Your task to perform on an android device: change timer sound Image 0: 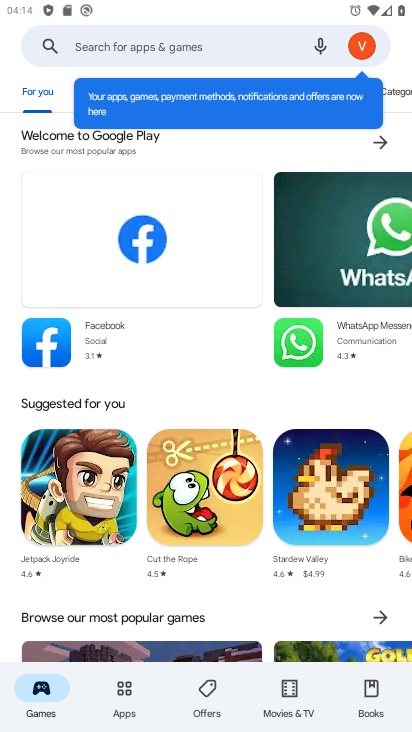
Step 0: press home button
Your task to perform on an android device: change timer sound Image 1: 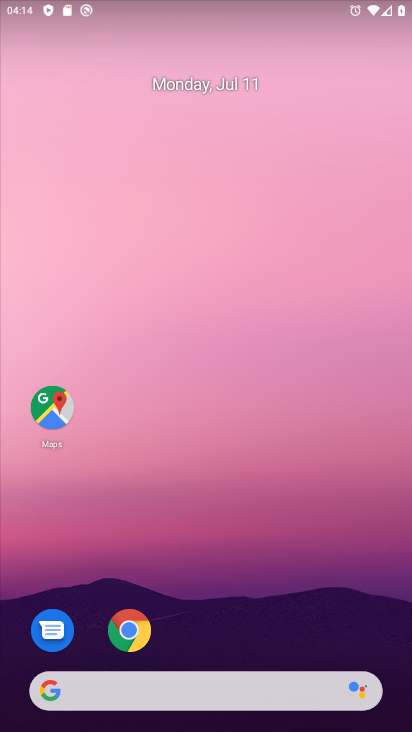
Step 1: drag from (217, 653) to (229, 159)
Your task to perform on an android device: change timer sound Image 2: 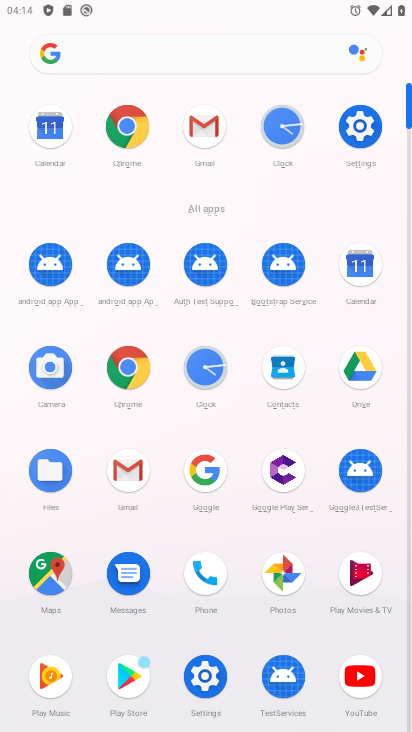
Step 2: click (283, 119)
Your task to perform on an android device: change timer sound Image 3: 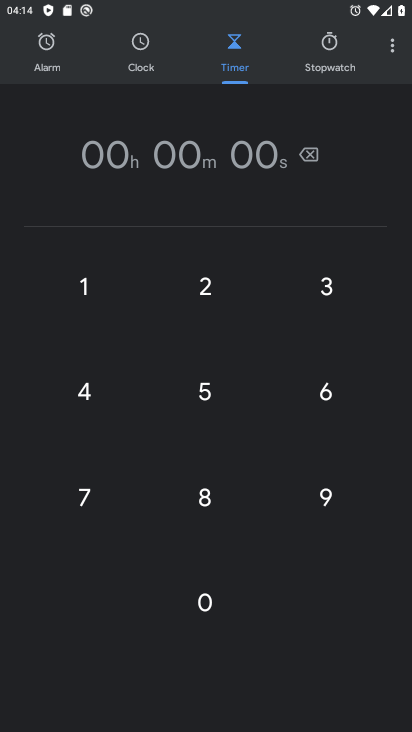
Step 3: click (393, 45)
Your task to perform on an android device: change timer sound Image 4: 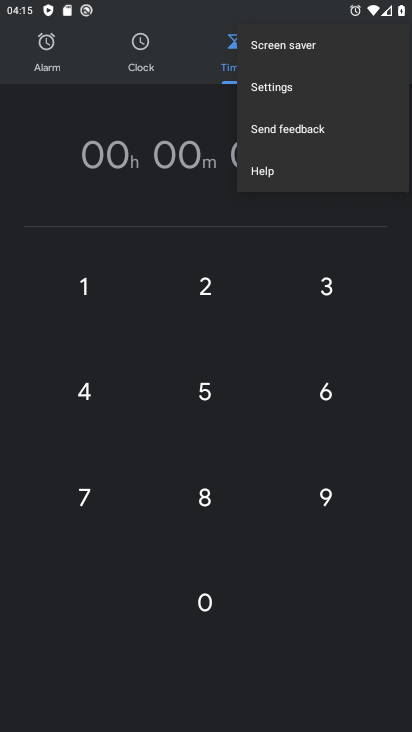
Step 4: click (298, 88)
Your task to perform on an android device: change timer sound Image 5: 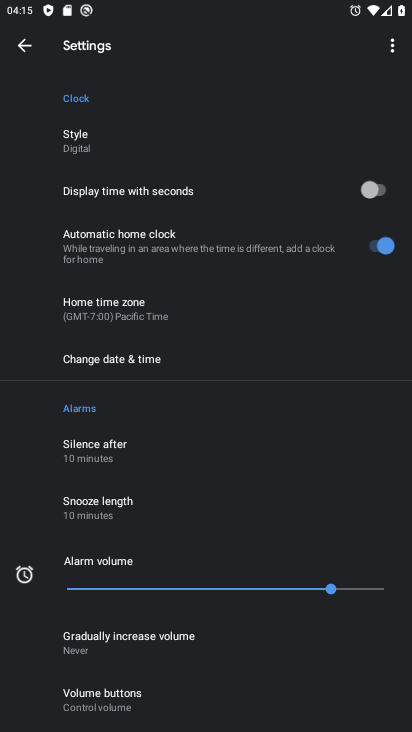
Step 5: drag from (170, 661) to (172, 218)
Your task to perform on an android device: change timer sound Image 6: 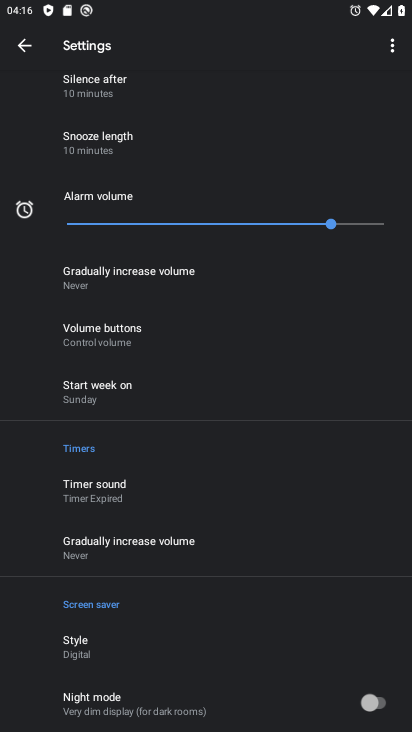
Step 6: click (136, 496)
Your task to perform on an android device: change timer sound Image 7: 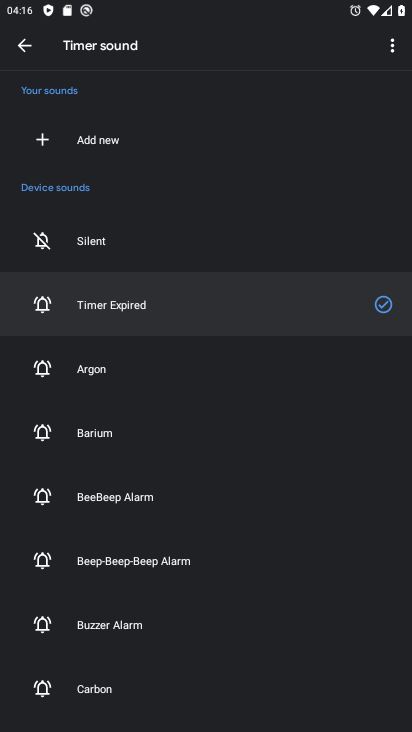
Step 7: click (135, 563)
Your task to perform on an android device: change timer sound Image 8: 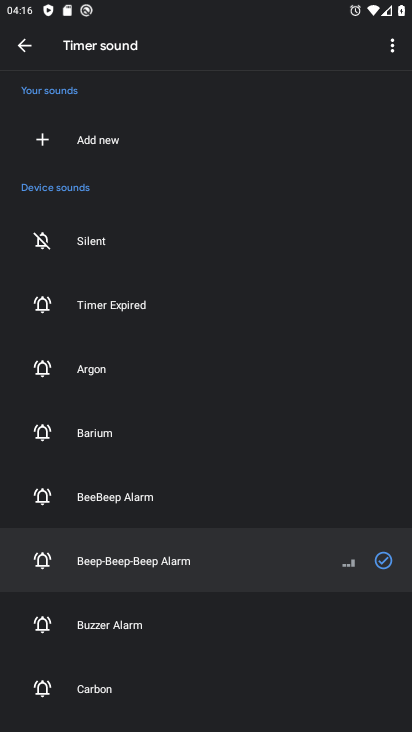
Step 8: task complete